Your task to perform on an android device: toggle priority inbox in the gmail app Image 0: 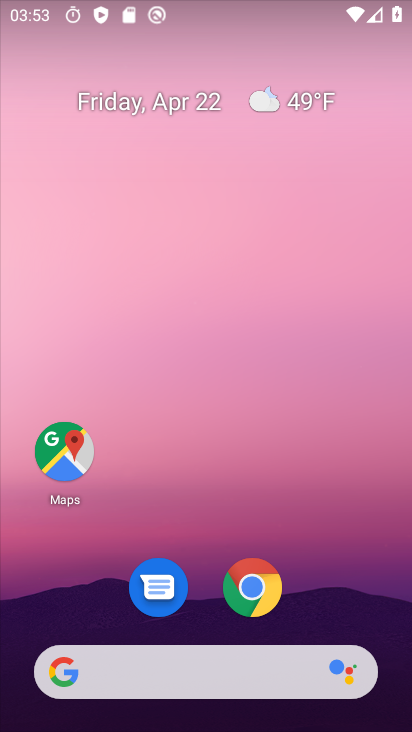
Step 0: drag from (349, 609) to (353, 34)
Your task to perform on an android device: toggle priority inbox in the gmail app Image 1: 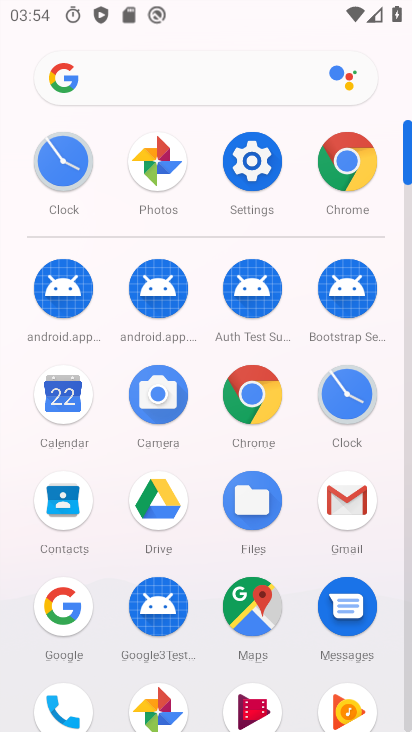
Step 1: click (338, 504)
Your task to perform on an android device: toggle priority inbox in the gmail app Image 2: 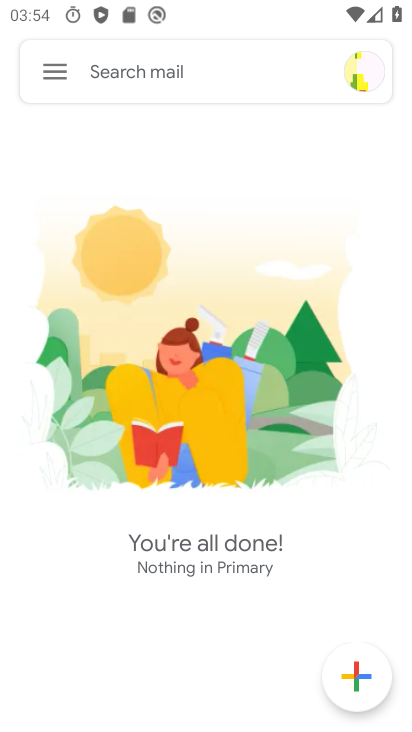
Step 2: click (63, 77)
Your task to perform on an android device: toggle priority inbox in the gmail app Image 3: 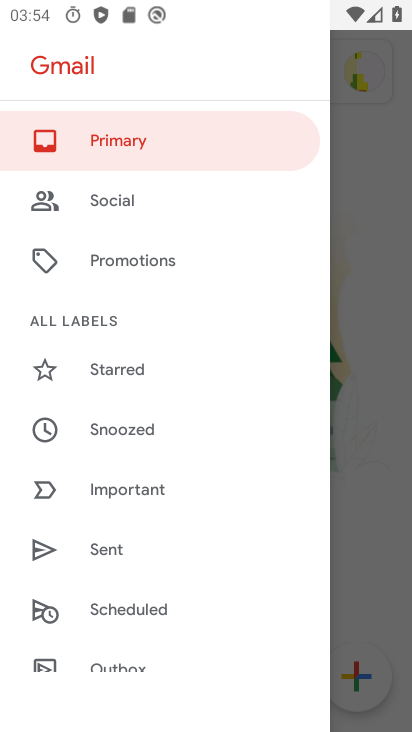
Step 3: drag from (224, 606) to (218, 121)
Your task to perform on an android device: toggle priority inbox in the gmail app Image 4: 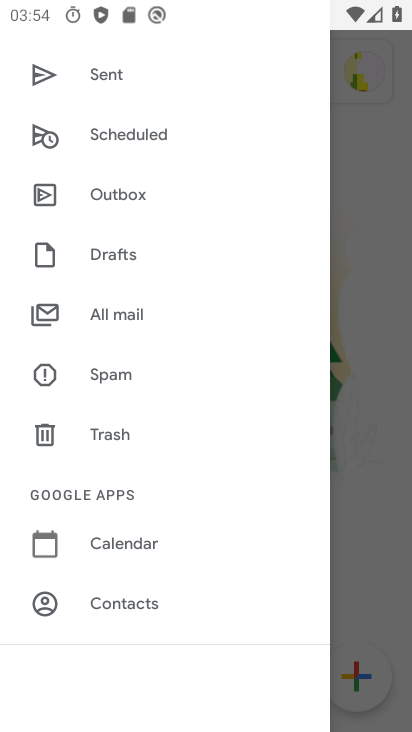
Step 4: drag from (189, 549) to (185, 184)
Your task to perform on an android device: toggle priority inbox in the gmail app Image 5: 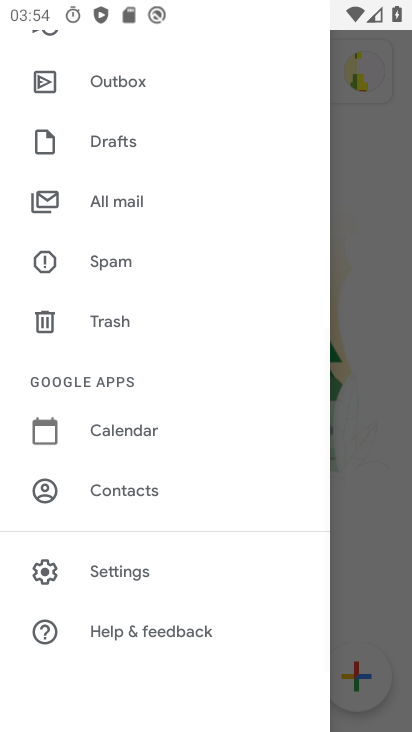
Step 5: click (110, 567)
Your task to perform on an android device: toggle priority inbox in the gmail app Image 6: 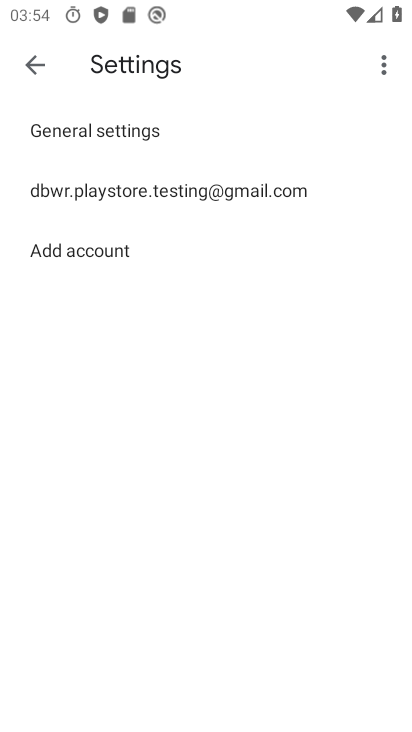
Step 6: click (104, 192)
Your task to perform on an android device: toggle priority inbox in the gmail app Image 7: 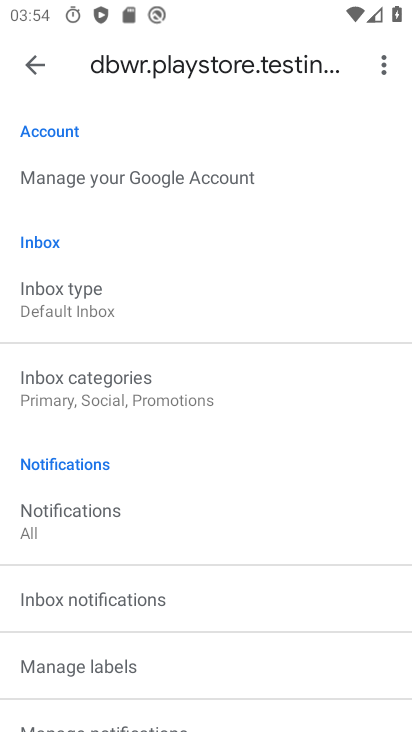
Step 7: click (74, 322)
Your task to perform on an android device: toggle priority inbox in the gmail app Image 8: 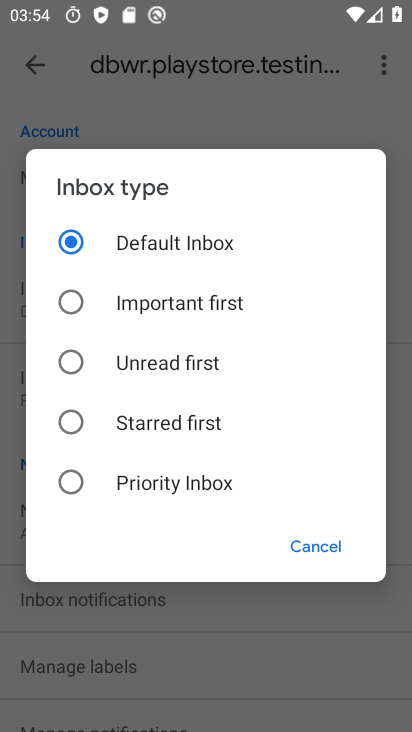
Step 8: click (76, 490)
Your task to perform on an android device: toggle priority inbox in the gmail app Image 9: 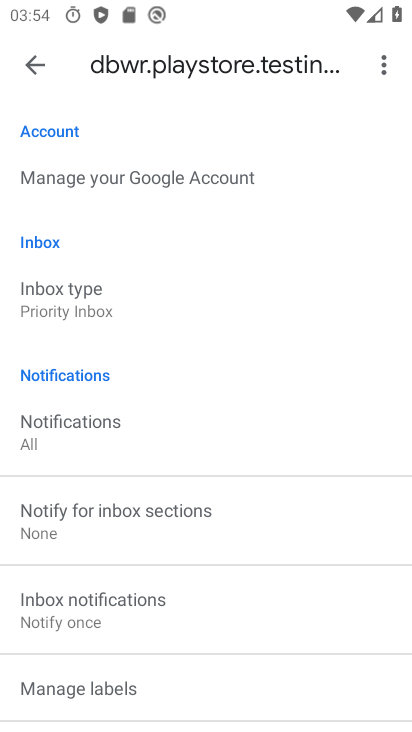
Step 9: task complete